Your task to perform on an android device: Go to display settings Image 0: 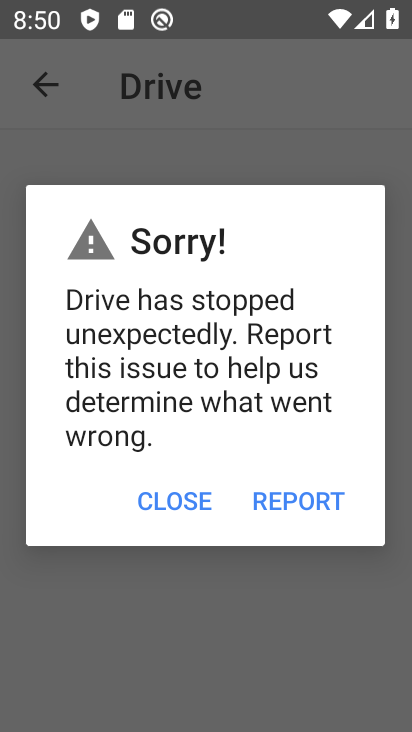
Step 0: press home button
Your task to perform on an android device: Go to display settings Image 1: 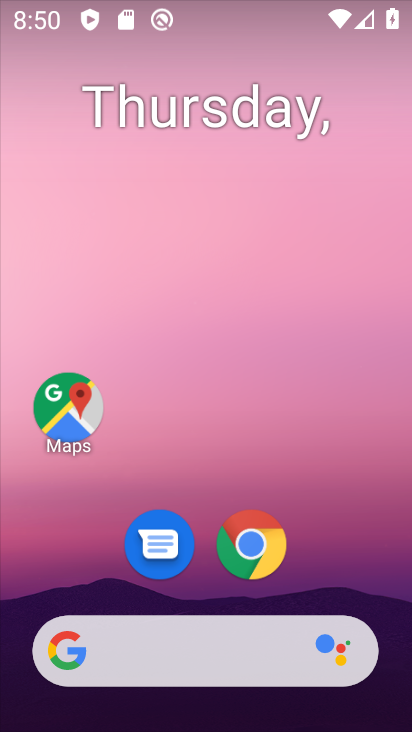
Step 1: drag from (169, 726) to (256, 176)
Your task to perform on an android device: Go to display settings Image 2: 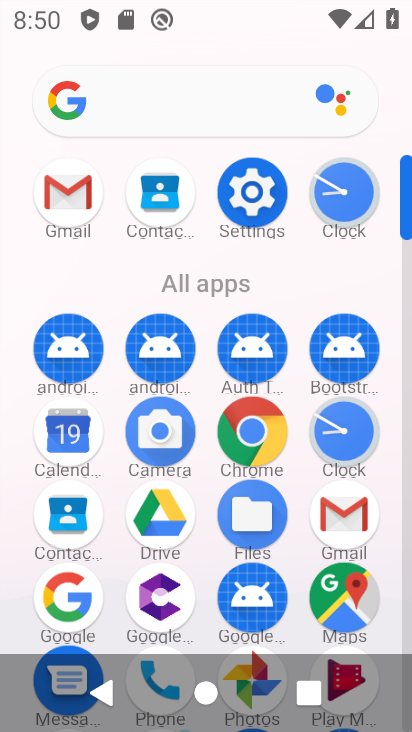
Step 2: click (247, 195)
Your task to perform on an android device: Go to display settings Image 3: 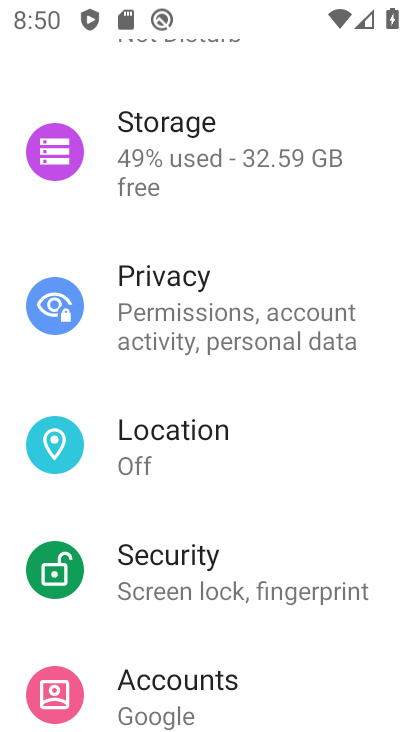
Step 3: drag from (268, 269) to (273, 713)
Your task to perform on an android device: Go to display settings Image 4: 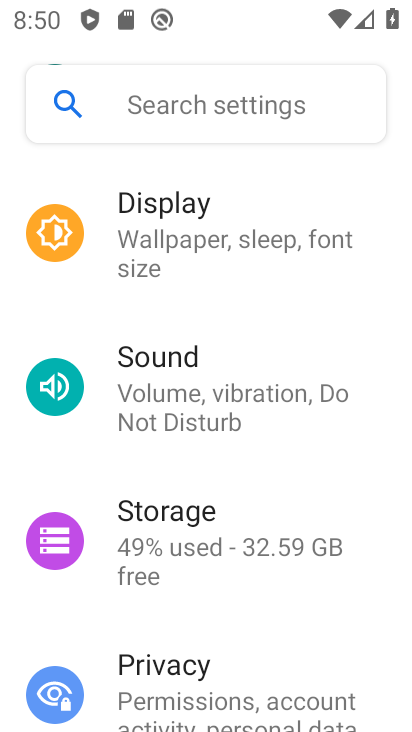
Step 4: click (233, 243)
Your task to perform on an android device: Go to display settings Image 5: 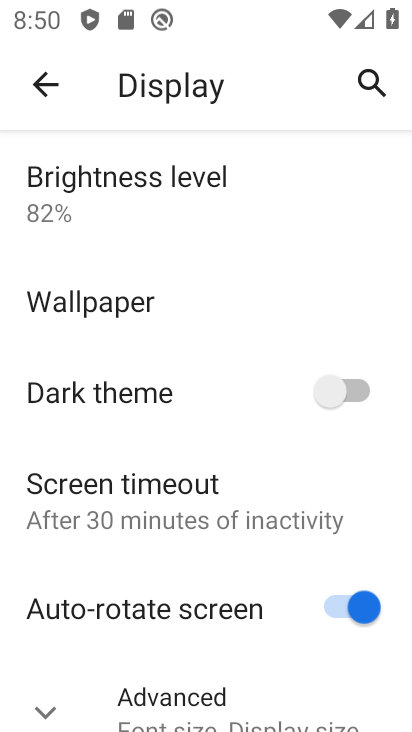
Step 5: task complete